Your task to perform on an android device: change your default location settings in chrome Image 0: 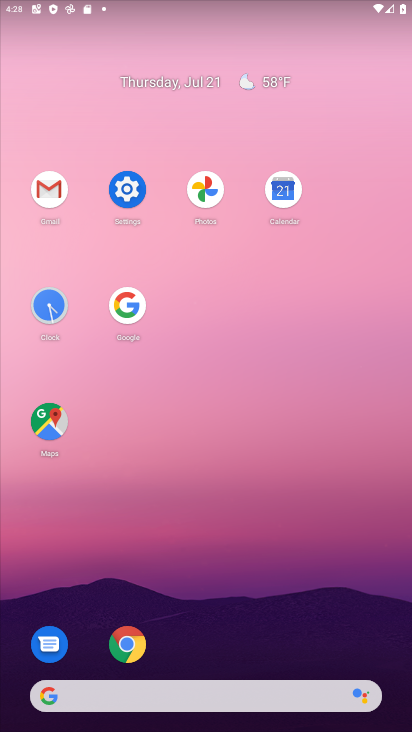
Step 0: click (122, 643)
Your task to perform on an android device: change your default location settings in chrome Image 1: 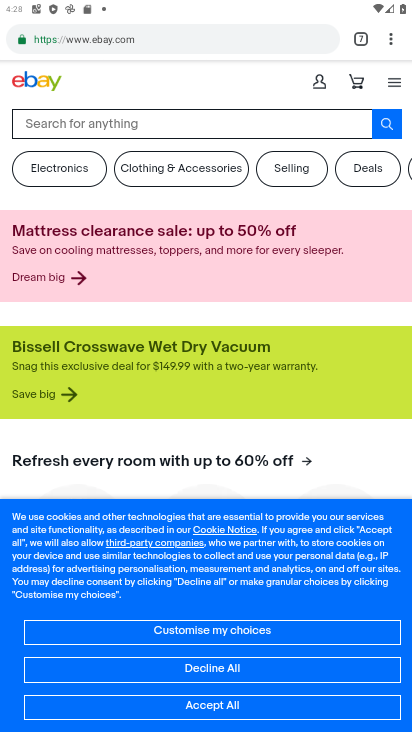
Step 1: click (395, 49)
Your task to perform on an android device: change your default location settings in chrome Image 2: 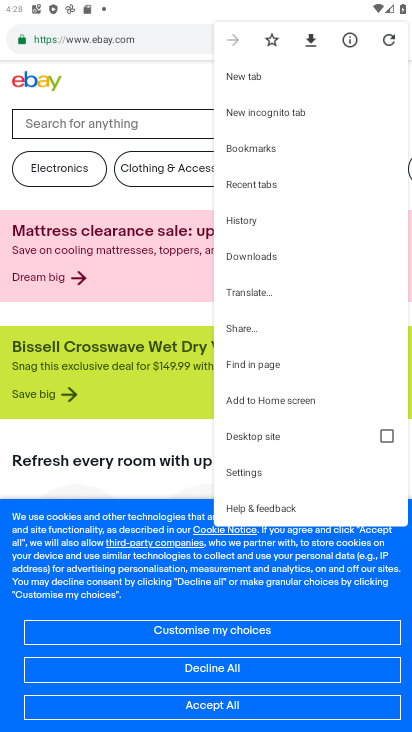
Step 2: click (268, 483)
Your task to perform on an android device: change your default location settings in chrome Image 3: 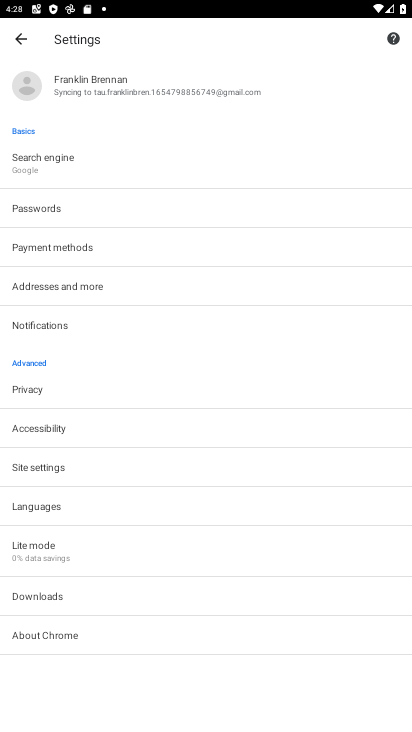
Step 3: click (207, 461)
Your task to perform on an android device: change your default location settings in chrome Image 4: 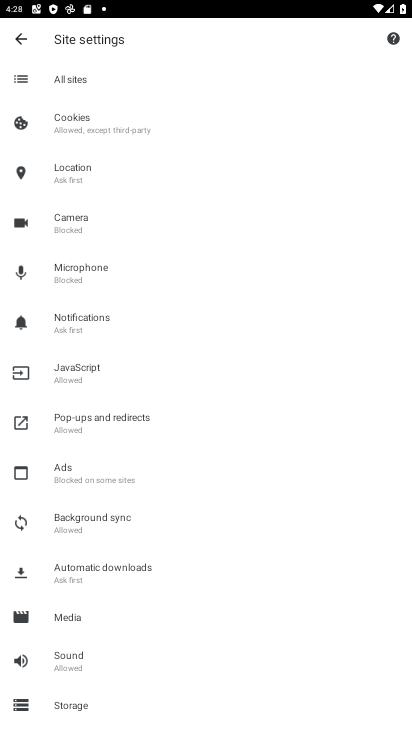
Step 4: click (244, 167)
Your task to perform on an android device: change your default location settings in chrome Image 5: 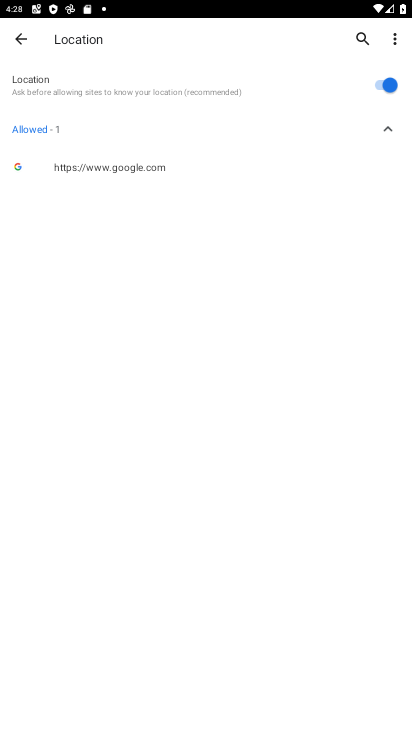
Step 5: click (383, 81)
Your task to perform on an android device: change your default location settings in chrome Image 6: 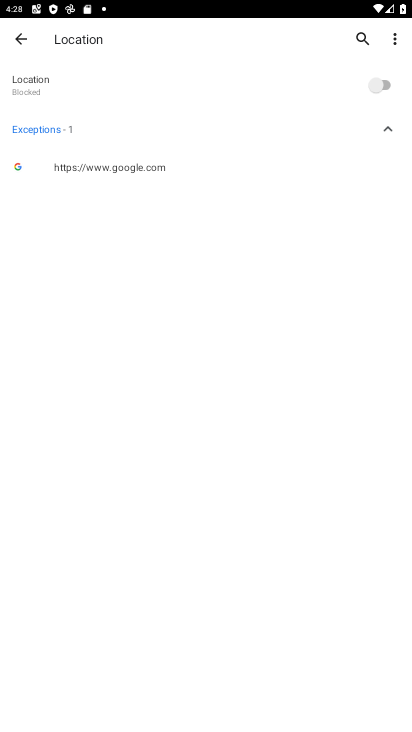
Step 6: task complete